Your task to perform on an android device: turn on improve location accuracy Image 0: 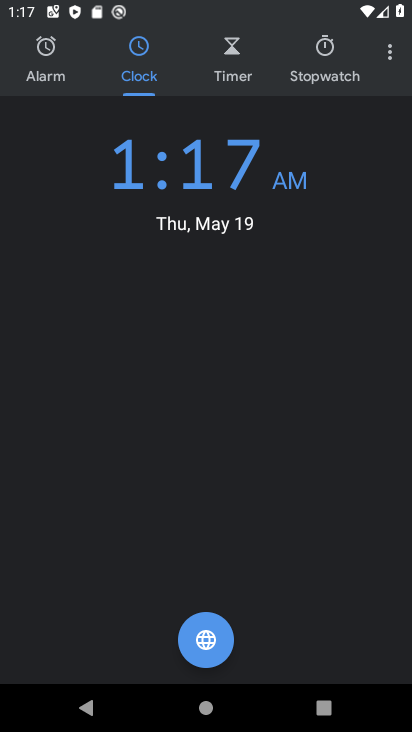
Step 0: press home button
Your task to perform on an android device: turn on improve location accuracy Image 1: 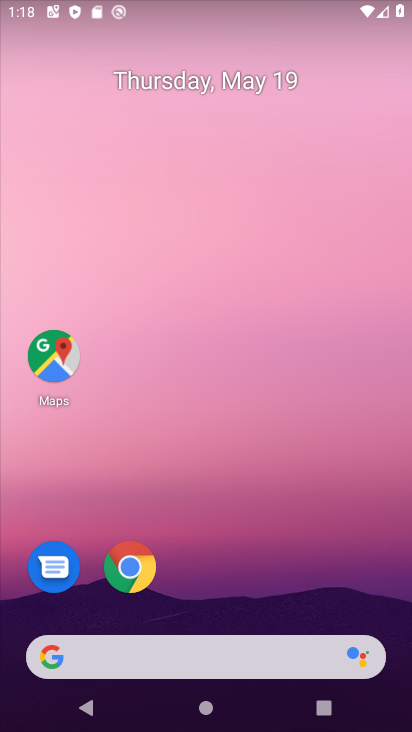
Step 1: drag from (62, 467) to (281, 91)
Your task to perform on an android device: turn on improve location accuracy Image 2: 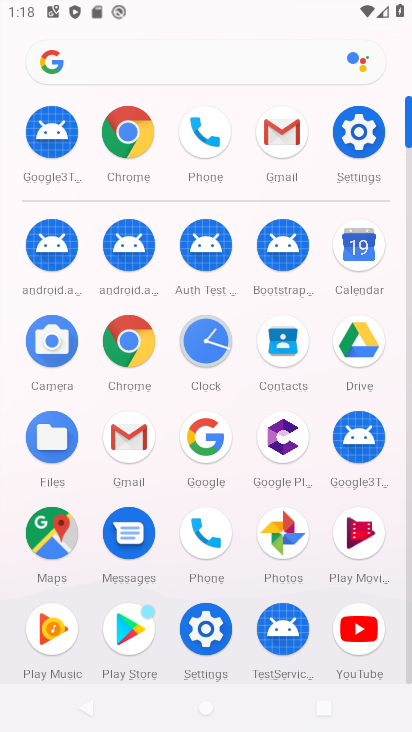
Step 2: click (376, 134)
Your task to perform on an android device: turn on improve location accuracy Image 3: 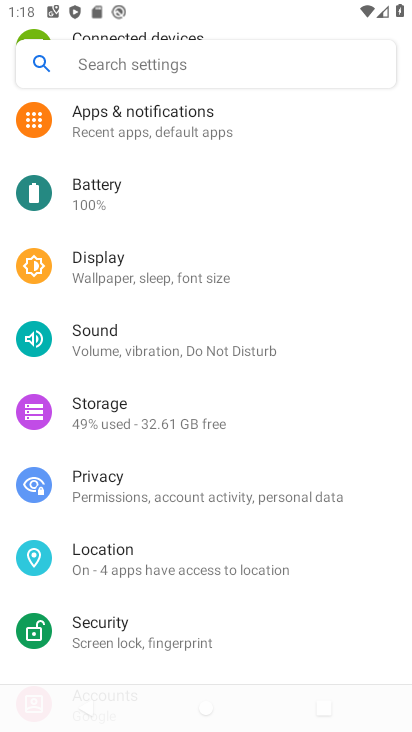
Step 3: click (215, 553)
Your task to perform on an android device: turn on improve location accuracy Image 4: 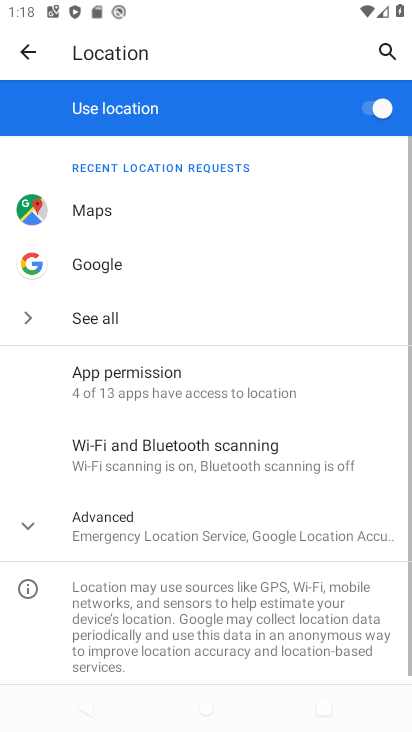
Step 4: click (214, 530)
Your task to perform on an android device: turn on improve location accuracy Image 5: 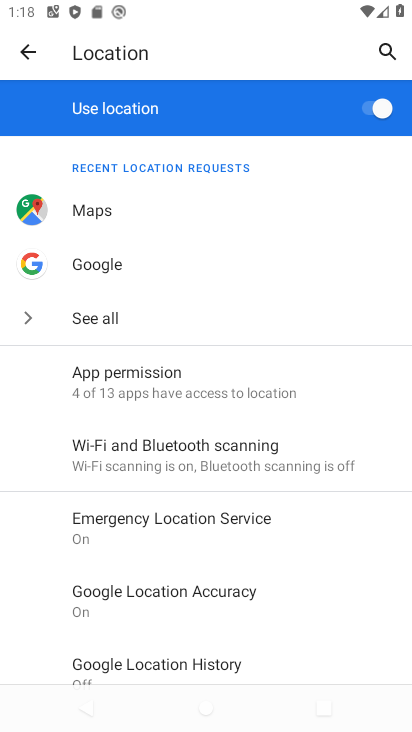
Step 5: click (78, 606)
Your task to perform on an android device: turn on improve location accuracy Image 6: 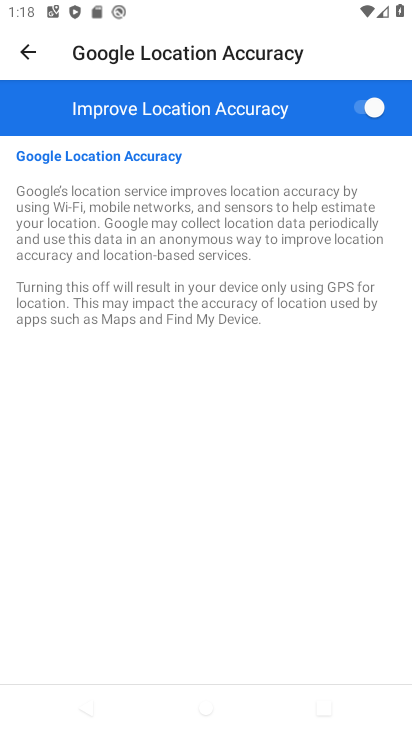
Step 6: task complete